Your task to perform on an android device: Clear the cart on target.com. Image 0: 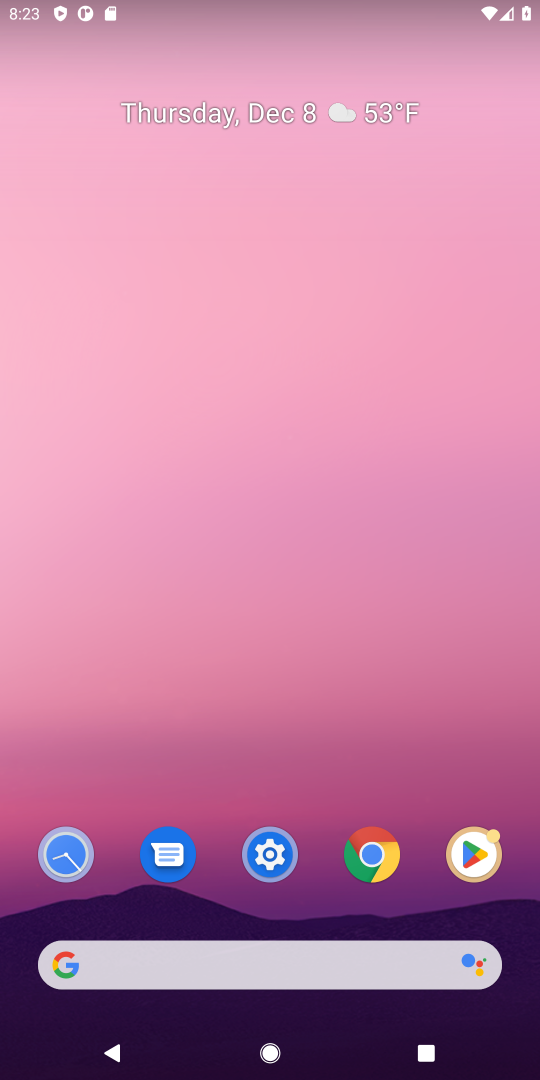
Step 0: press home button
Your task to perform on an android device: Clear the cart on target.com. Image 1: 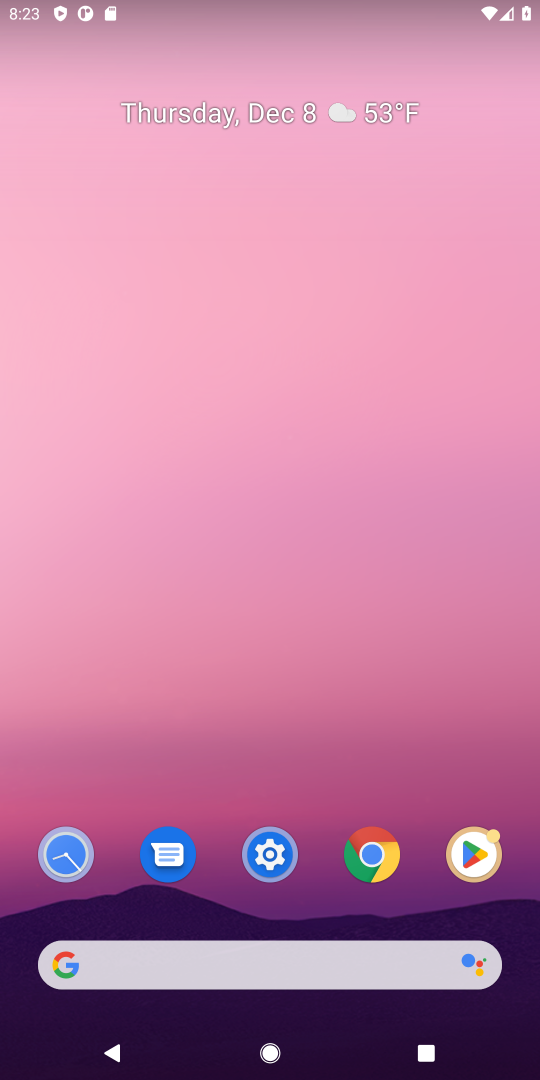
Step 1: click (96, 966)
Your task to perform on an android device: Clear the cart on target.com. Image 2: 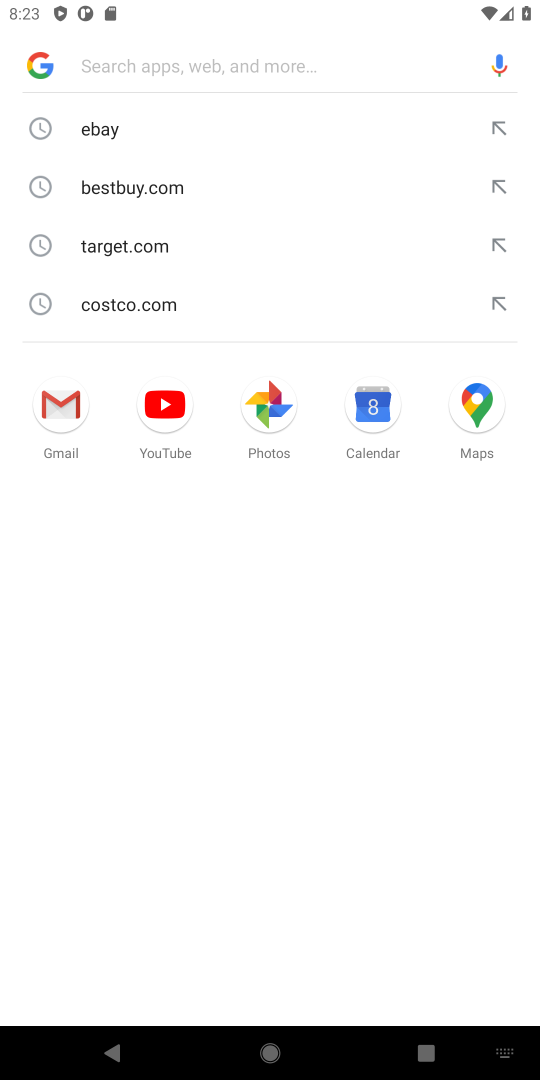
Step 2: type "target.com"
Your task to perform on an android device: Clear the cart on target.com. Image 3: 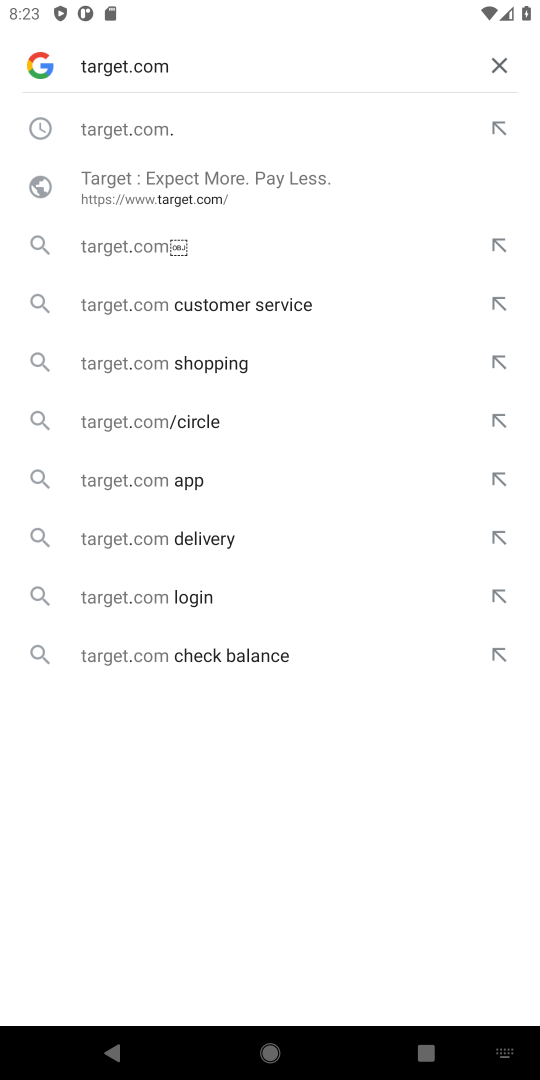
Step 3: press enter
Your task to perform on an android device: Clear the cart on target.com. Image 4: 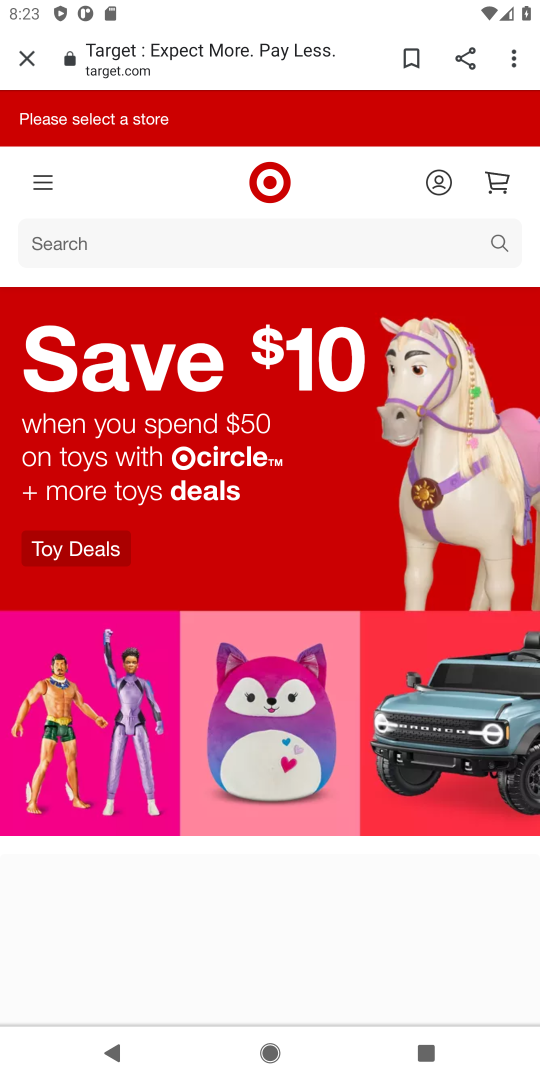
Step 4: click (495, 187)
Your task to perform on an android device: Clear the cart on target.com. Image 5: 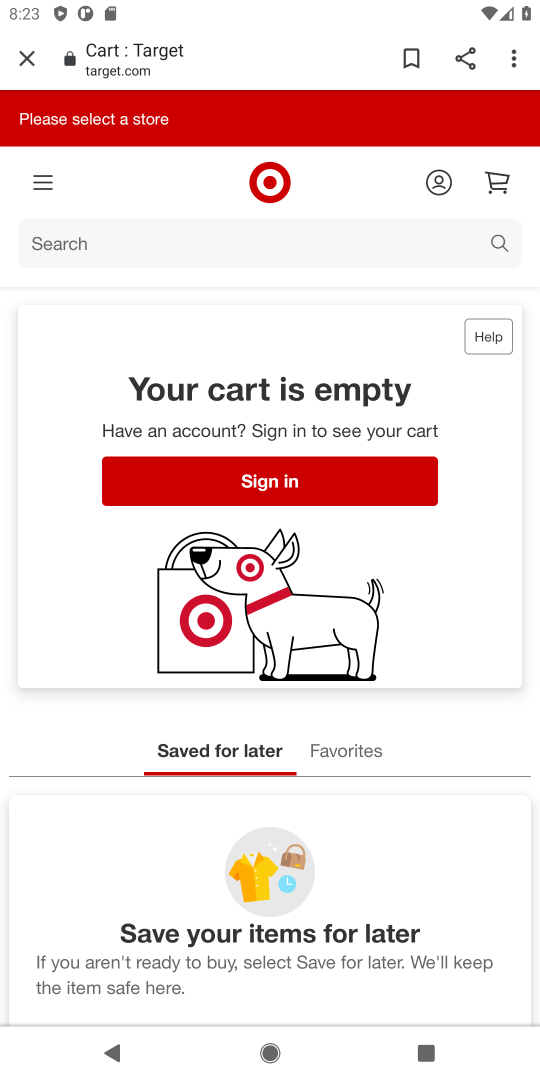
Step 5: task complete